Your task to perform on an android device: Open Amazon Image 0: 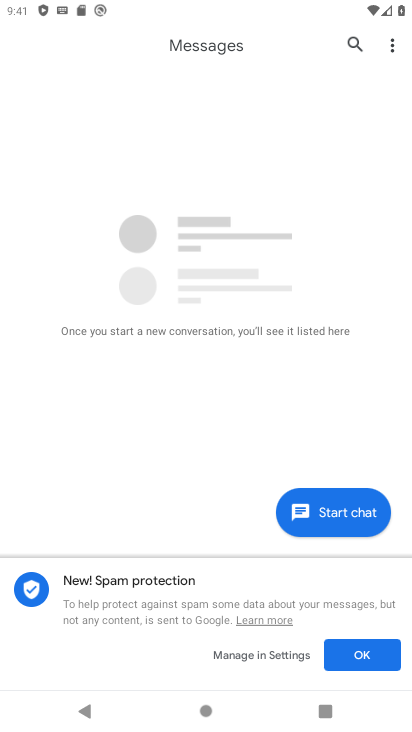
Step 0: press home button
Your task to perform on an android device: Open Amazon Image 1: 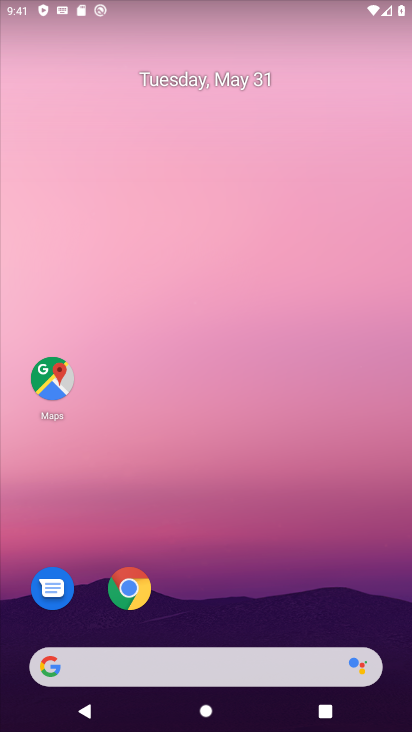
Step 1: click (125, 591)
Your task to perform on an android device: Open Amazon Image 2: 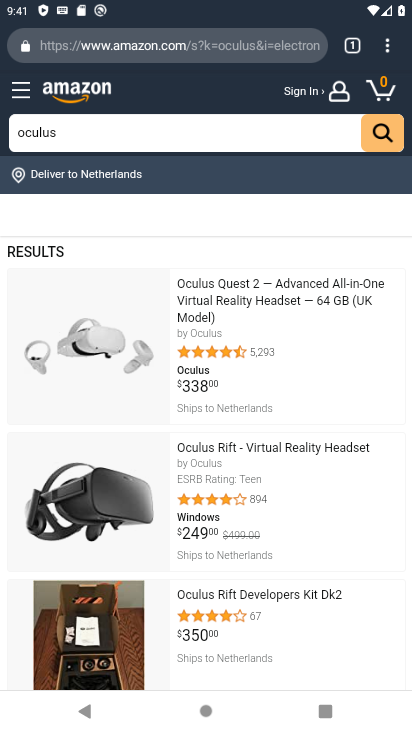
Step 2: task complete